Your task to perform on an android device: Open Wikipedia Image 0: 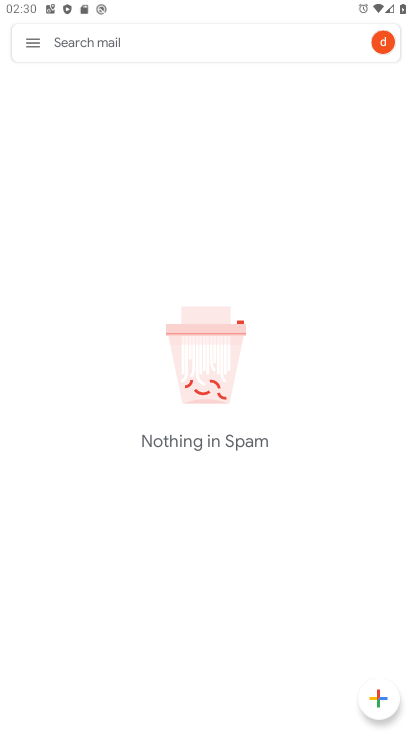
Step 0: task impossible